Your task to perform on an android device: change timer sound Image 0: 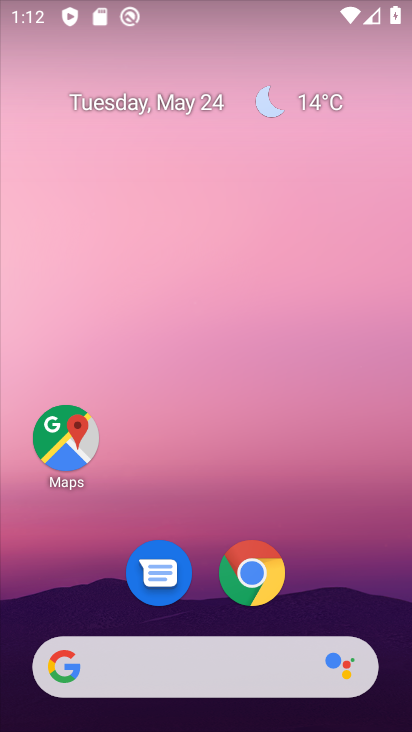
Step 0: drag from (373, 554) to (371, 259)
Your task to perform on an android device: change timer sound Image 1: 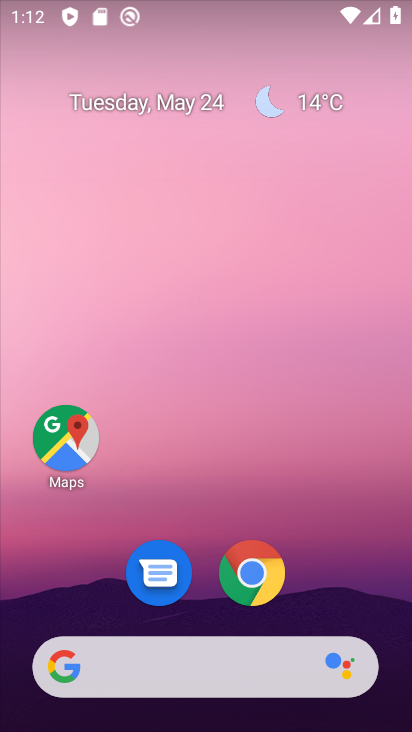
Step 1: drag from (338, 609) to (330, 129)
Your task to perform on an android device: change timer sound Image 2: 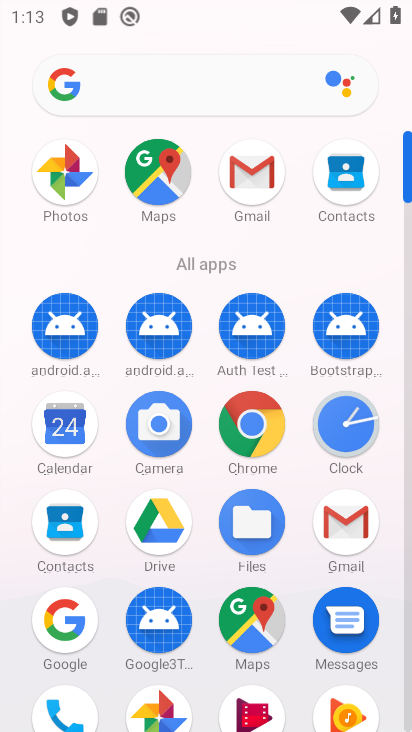
Step 2: drag from (292, 682) to (270, 321)
Your task to perform on an android device: change timer sound Image 3: 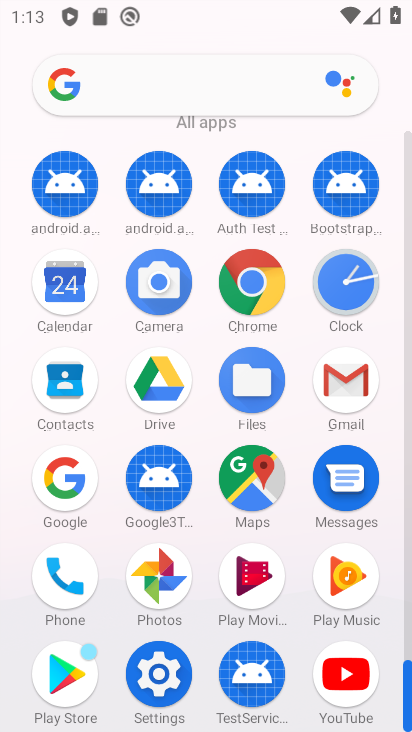
Step 3: click (166, 666)
Your task to perform on an android device: change timer sound Image 4: 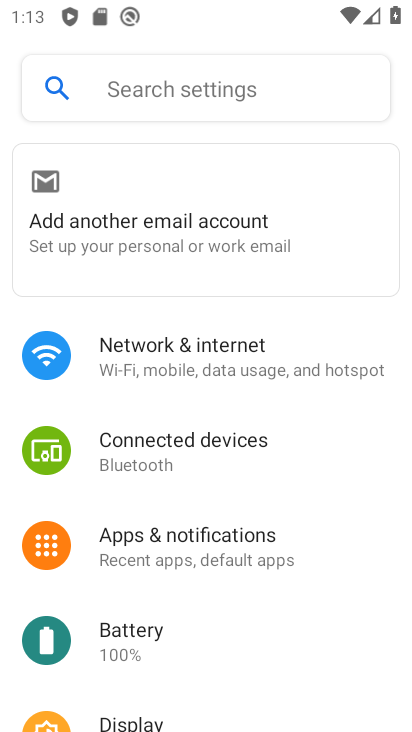
Step 4: drag from (217, 667) to (241, 348)
Your task to perform on an android device: change timer sound Image 5: 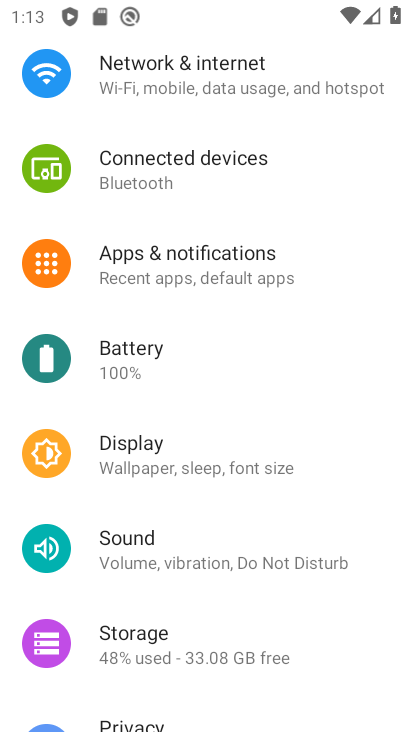
Step 5: click (191, 558)
Your task to perform on an android device: change timer sound Image 6: 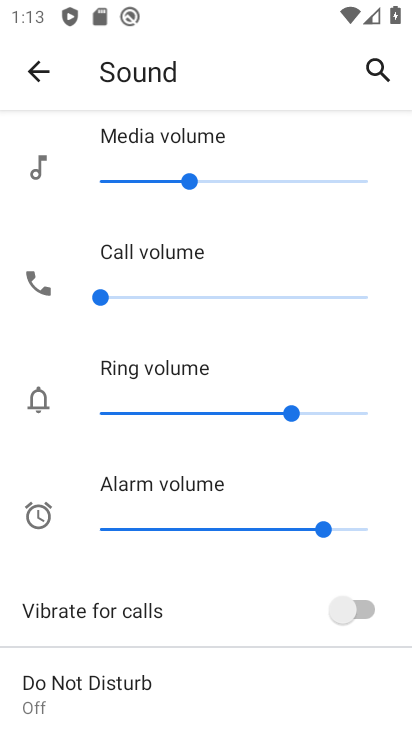
Step 6: press home button
Your task to perform on an android device: change timer sound Image 7: 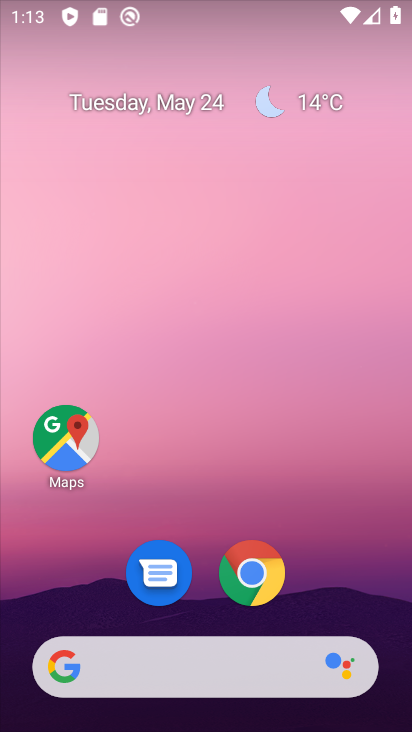
Step 7: drag from (377, 552) to (391, 90)
Your task to perform on an android device: change timer sound Image 8: 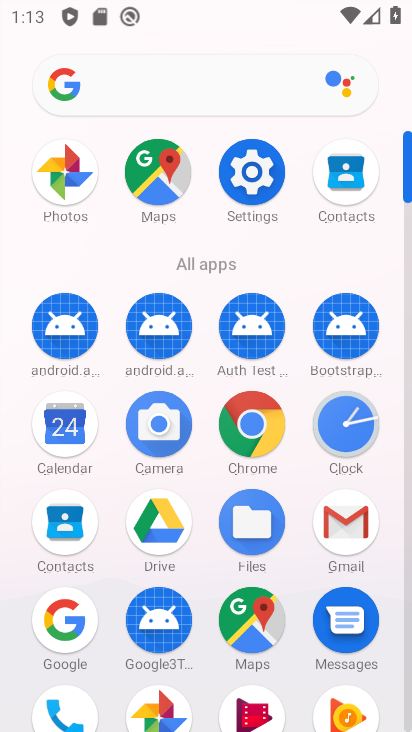
Step 8: click (336, 428)
Your task to perform on an android device: change timer sound Image 9: 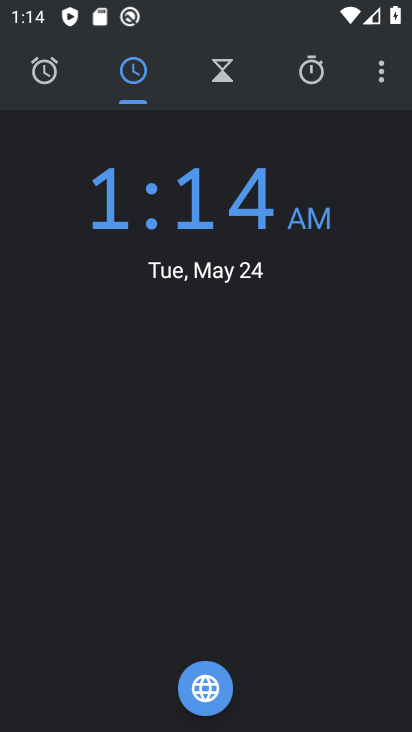
Step 9: click (386, 59)
Your task to perform on an android device: change timer sound Image 10: 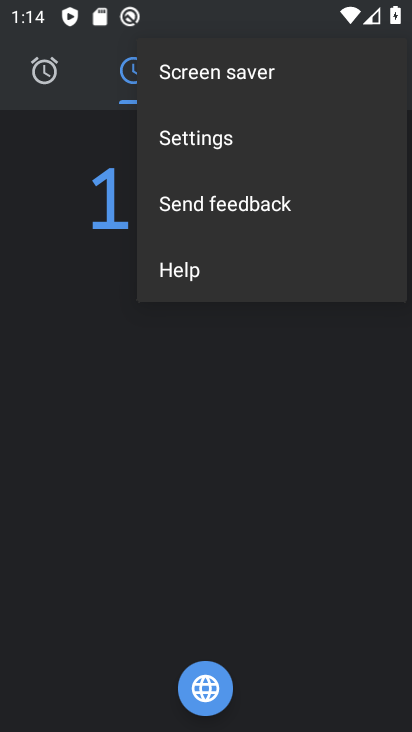
Step 10: click (227, 150)
Your task to perform on an android device: change timer sound Image 11: 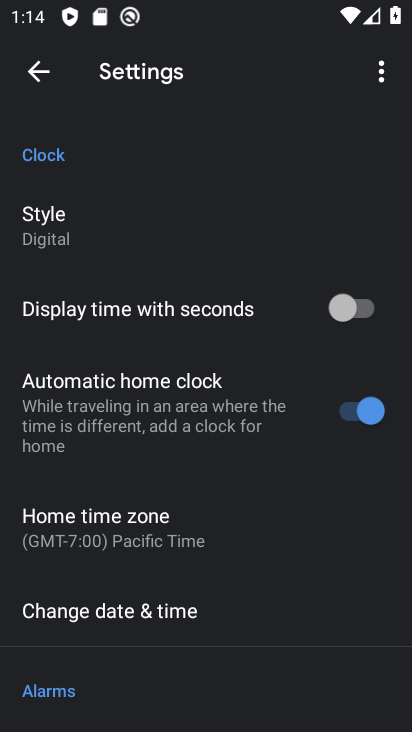
Step 11: drag from (266, 565) to (247, 257)
Your task to perform on an android device: change timer sound Image 12: 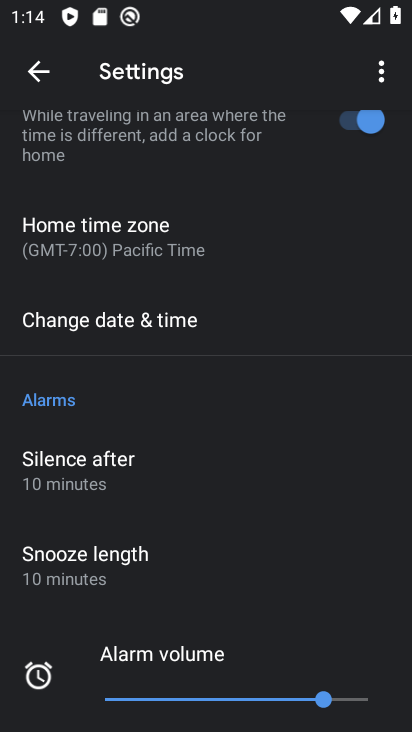
Step 12: drag from (246, 650) to (235, 94)
Your task to perform on an android device: change timer sound Image 13: 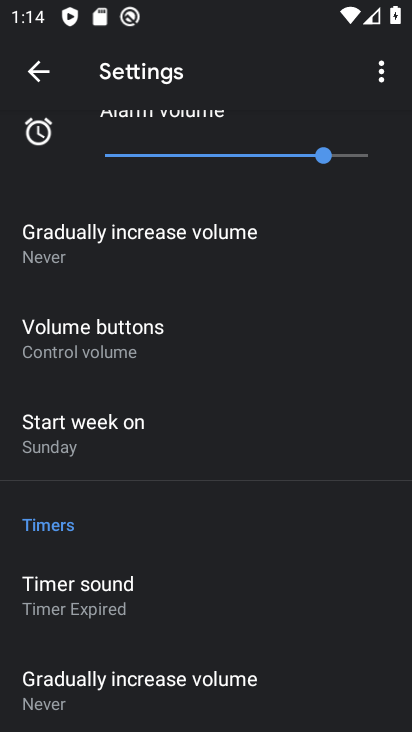
Step 13: click (100, 587)
Your task to perform on an android device: change timer sound Image 14: 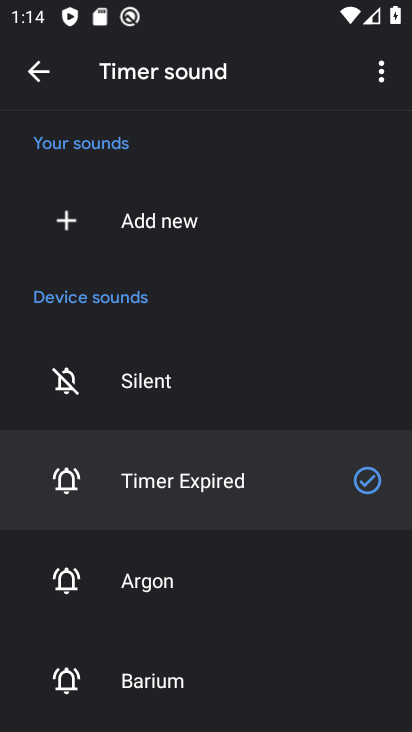
Step 14: click (167, 589)
Your task to perform on an android device: change timer sound Image 15: 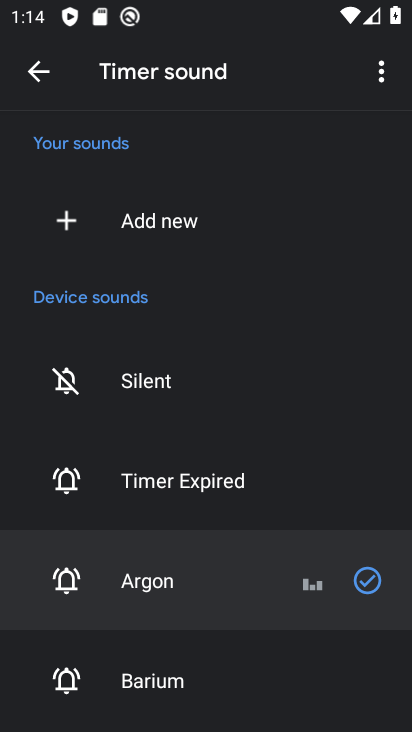
Step 15: task complete